Your task to perform on an android device: Show me the alarms in the clock app Image 0: 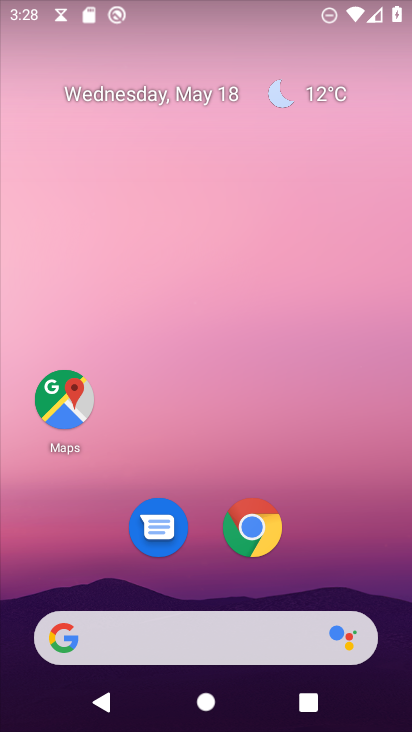
Step 0: drag from (364, 520) to (217, 22)
Your task to perform on an android device: Show me the alarms in the clock app Image 1: 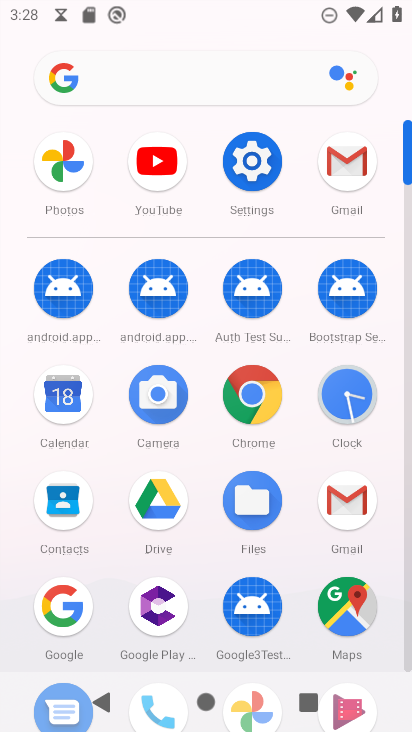
Step 1: click (353, 373)
Your task to perform on an android device: Show me the alarms in the clock app Image 2: 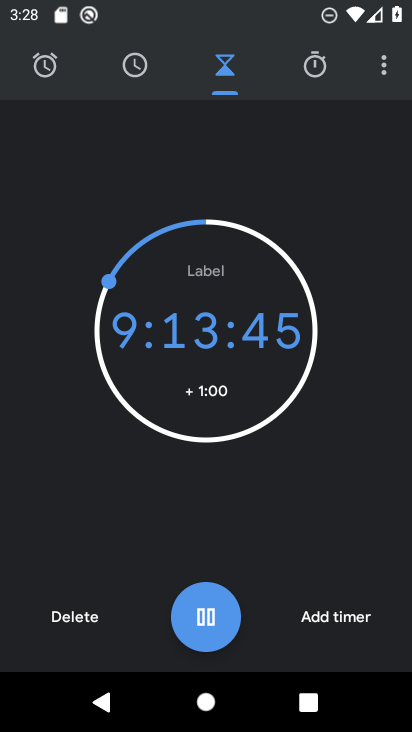
Step 2: click (51, 63)
Your task to perform on an android device: Show me the alarms in the clock app Image 3: 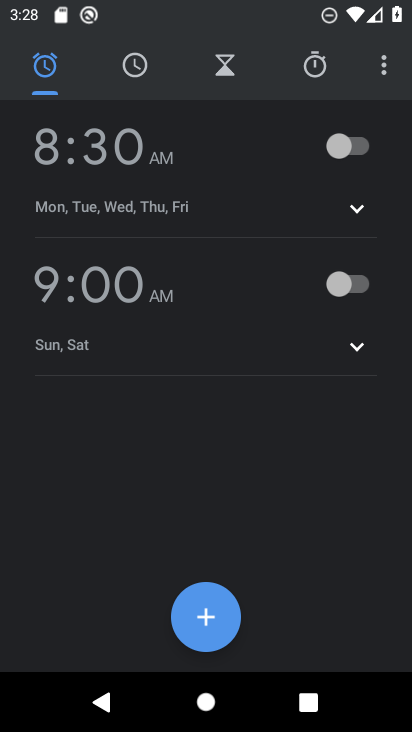
Step 3: task complete